Your task to perform on an android device: turn pop-ups off in chrome Image 0: 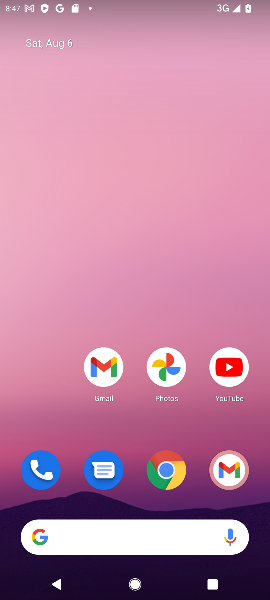
Step 0: click (156, 470)
Your task to perform on an android device: turn pop-ups off in chrome Image 1: 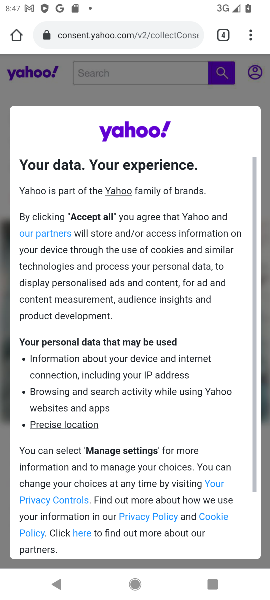
Step 1: click (247, 36)
Your task to perform on an android device: turn pop-ups off in chrome Image 2: 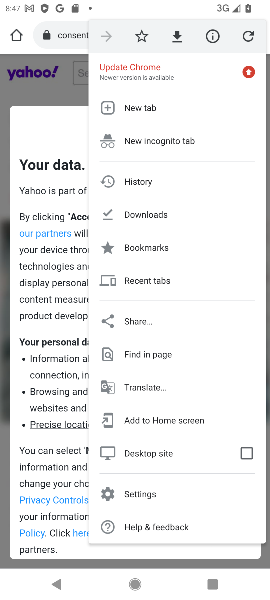
Step 2: click (154, 497)
Your task to perform on an android device: turn pop-ups off in chrome Image 3: 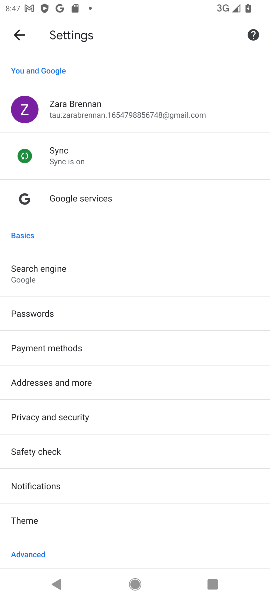
Step 3: drag from (98, 536) to (124, 362)
Your task to perform on an android device: turn pop-ups off in chrome Image 4: 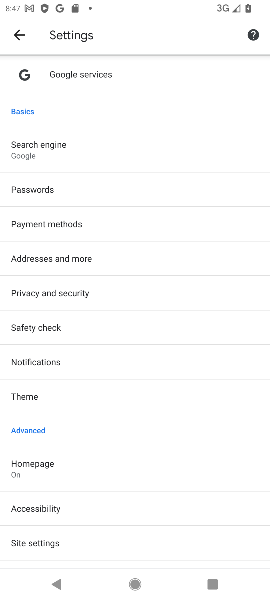
Step 4: click (64, 536)
Your task to perform on an android device: turn pop-ups off in chrome Image 5: 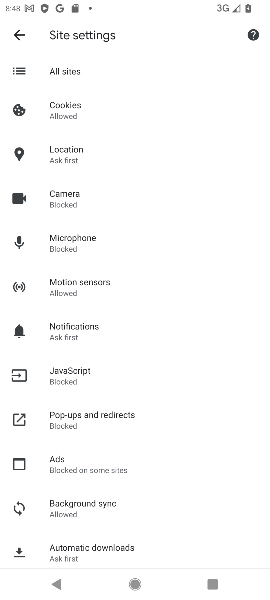
Step 5: click (100, 421)
Your task to perform on an android device: turn pop-ups off in chrome Image 6: 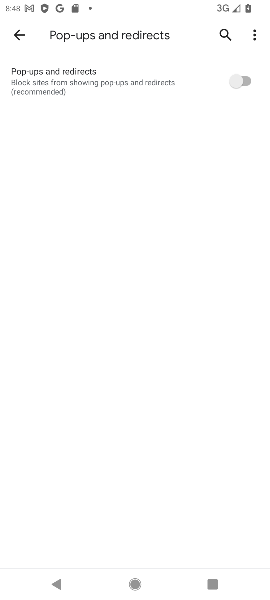
Step 6: task complete